Your task to perform on an android device: uninstall "WhatsApp Messenger" Image 0: 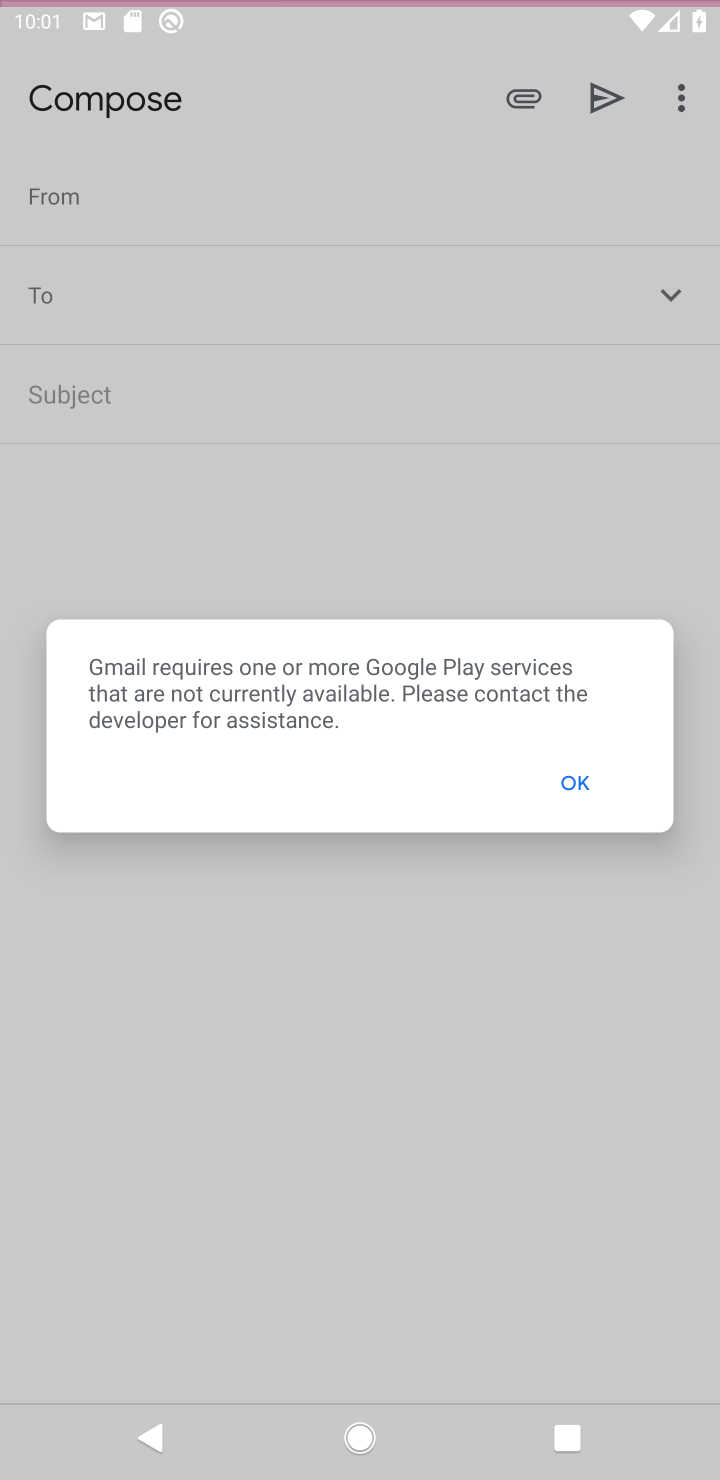
Step 0: press home button
Your task to perform on an android device: uninstall "WhatsApp Messenger" Image 1: 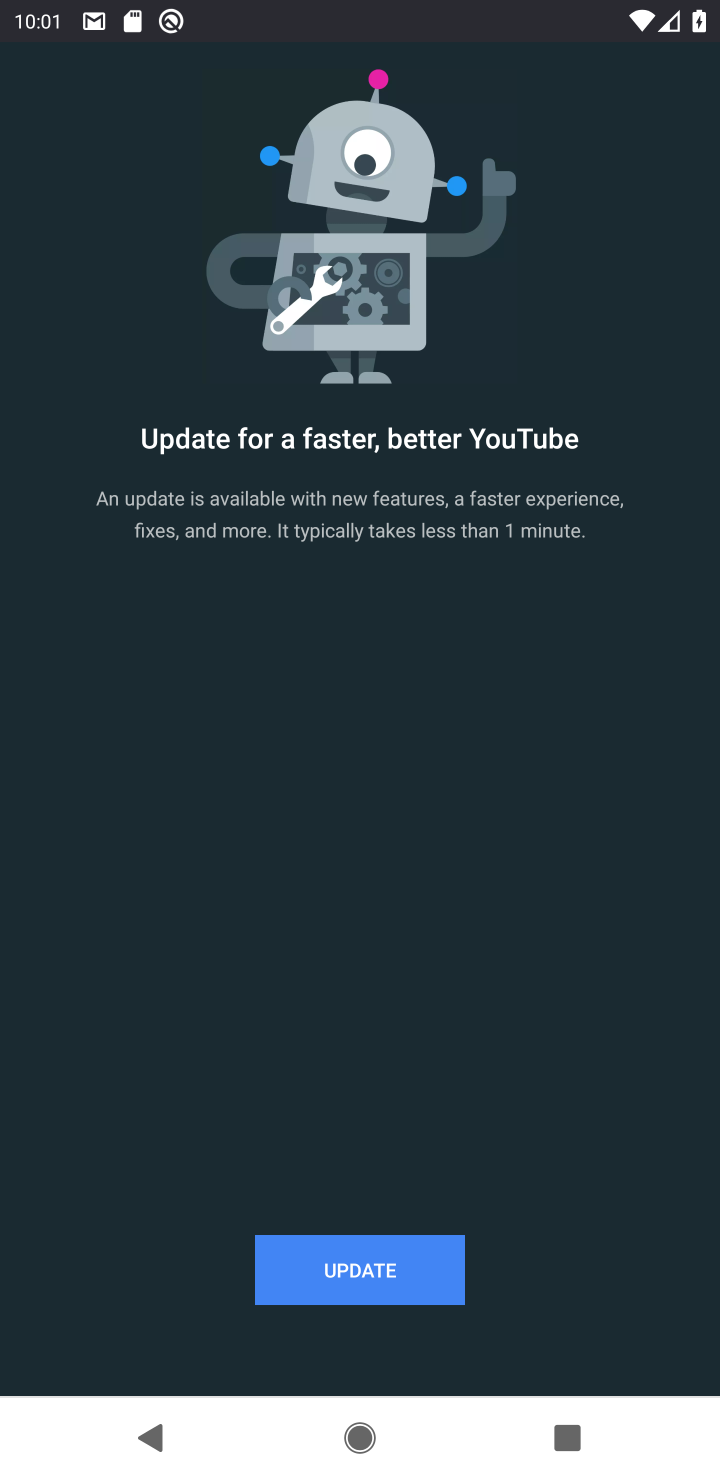
Step 1: press home button
Your task to perform on an android device: uninstall "WhatsApp Messenger" Image 2: 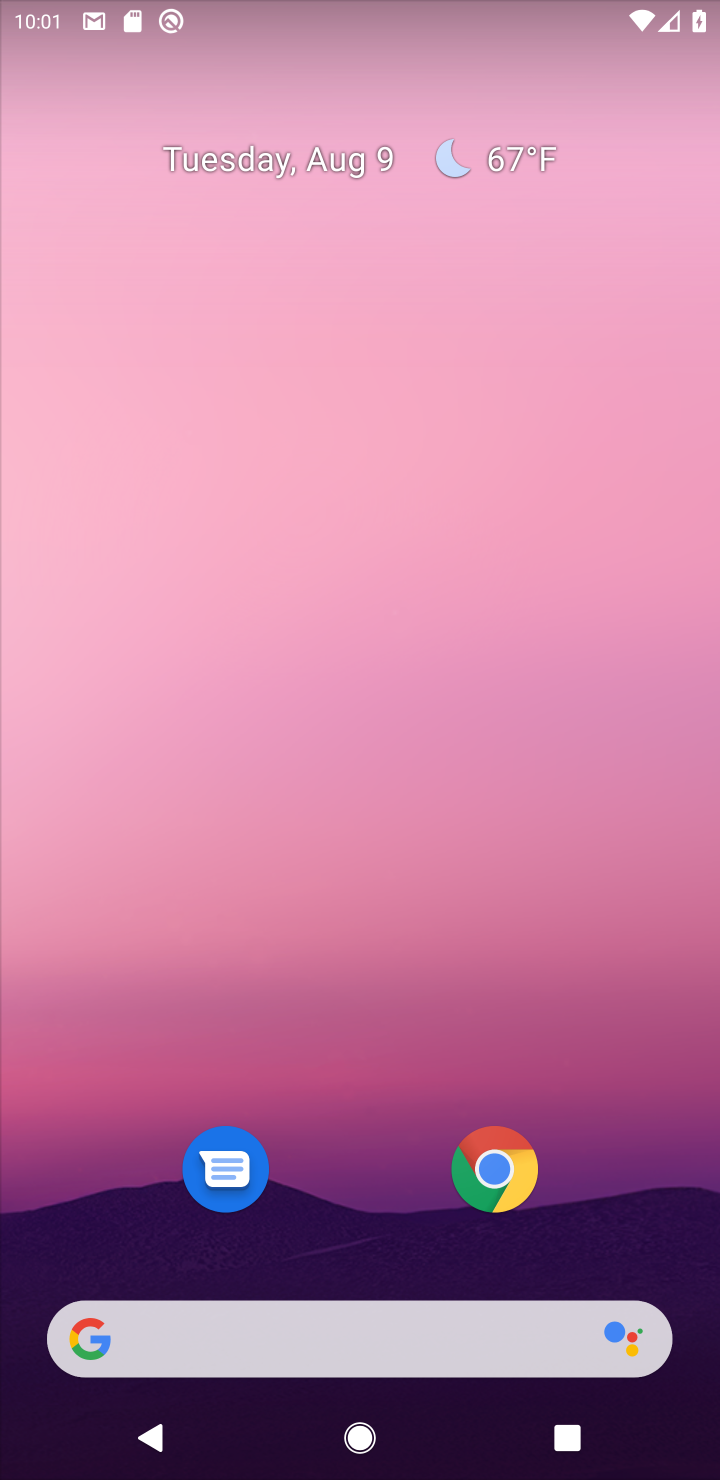
Step 2: drag from (617, 1170) to (664, 98)
Your task to perform on an android device: uninstall "WhatsApp Messenger" Image 3: 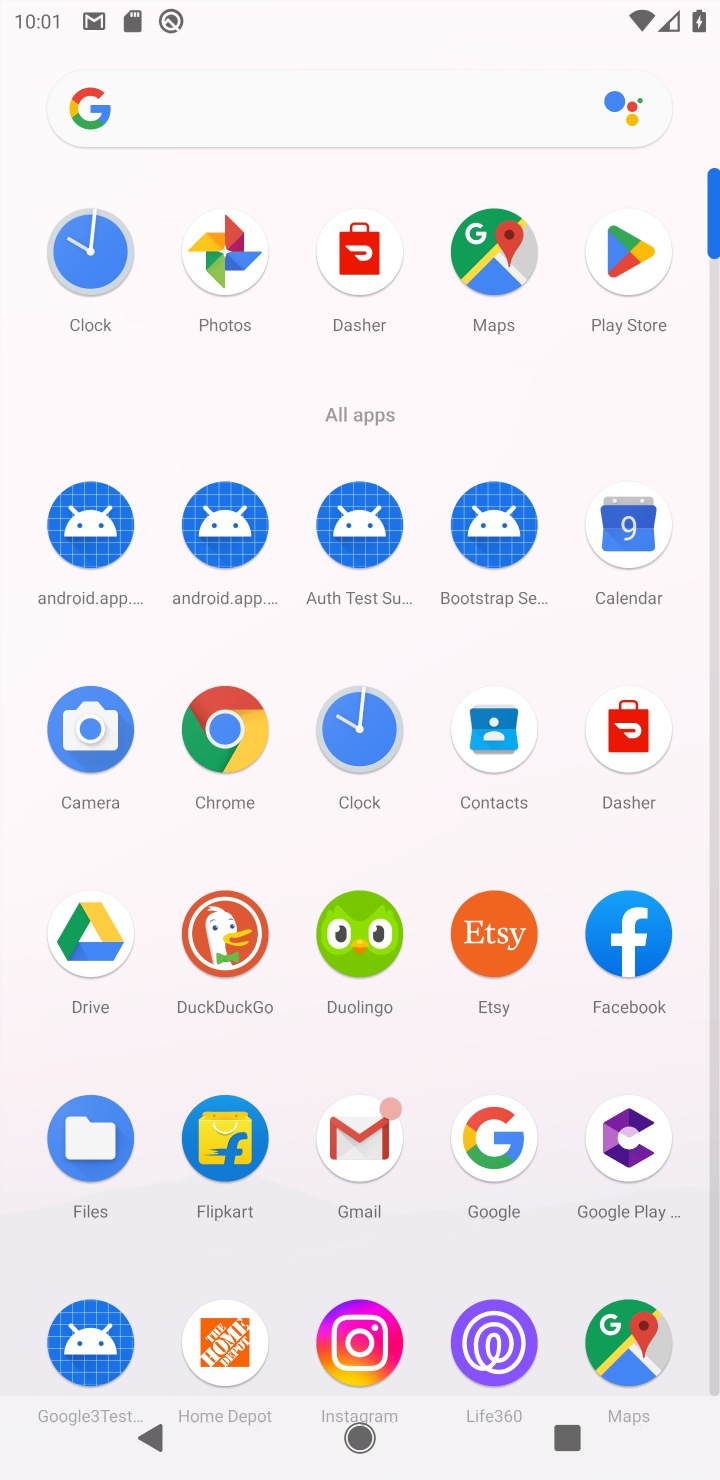
Step 3: click (626, 263)
Your task to perform on an android device: uninstall "WhatsApp Messenger" Image 4: 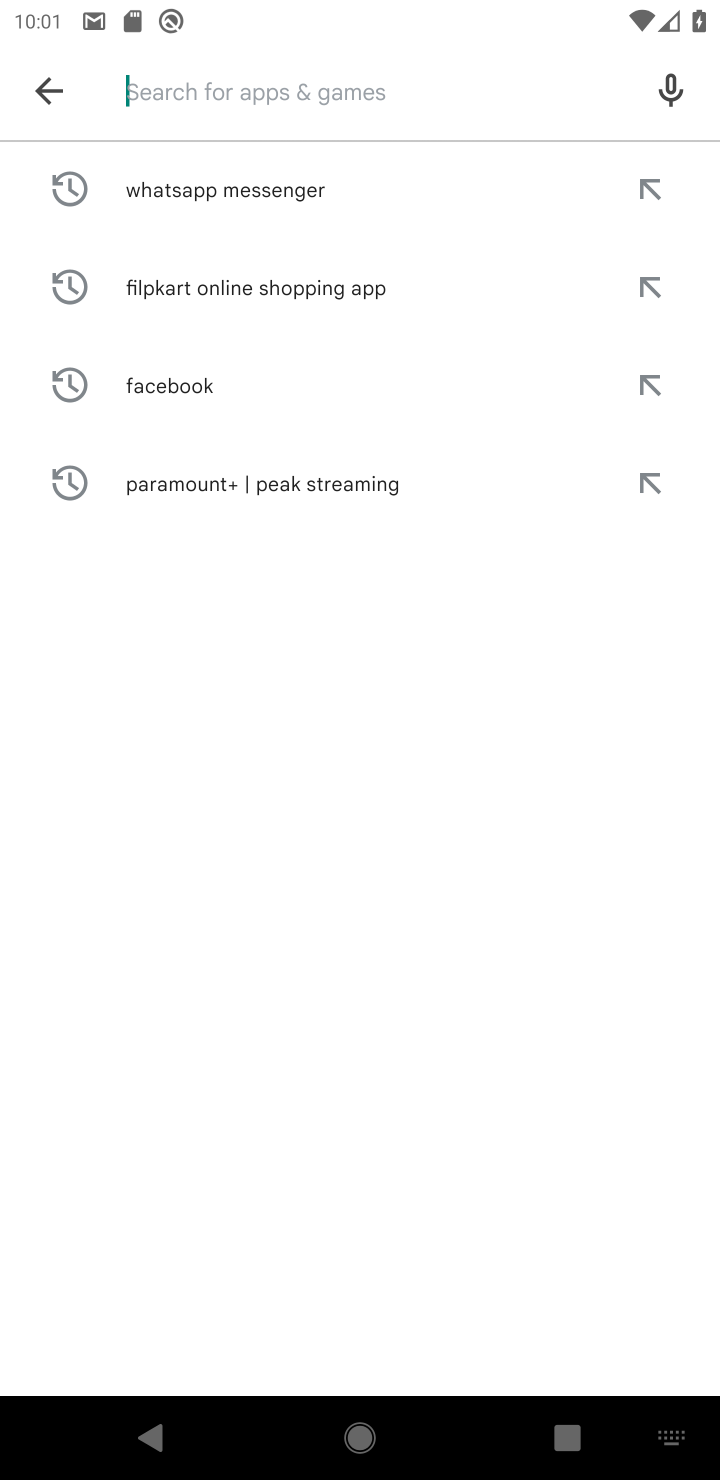
Step 4: click (504, 107)
Your task to perform on an android device: uninstall "WhatsApp Messenger" Image 5: 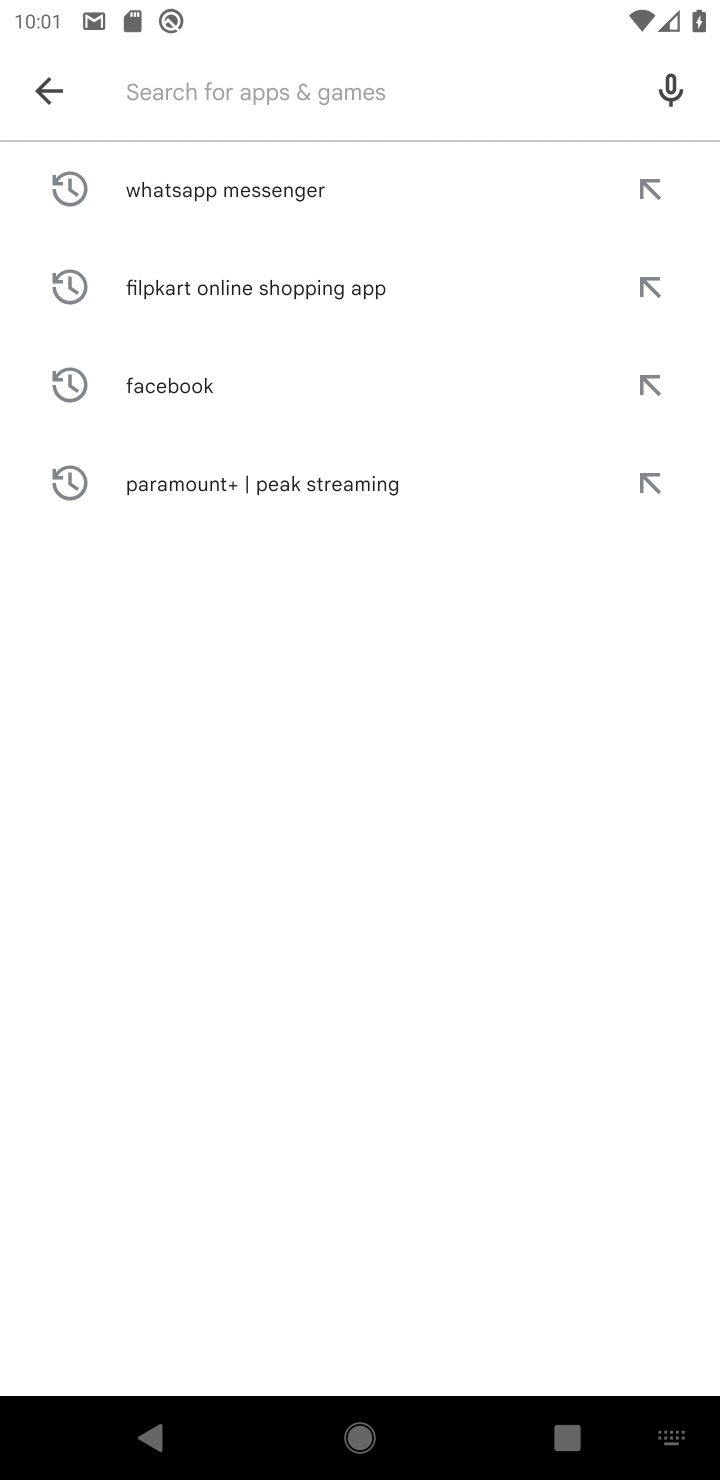
Step 5: type "WhatsApp Messenger"
Your task to perform on an android device: uninstall "WhatsApp Messenger" Image 6: 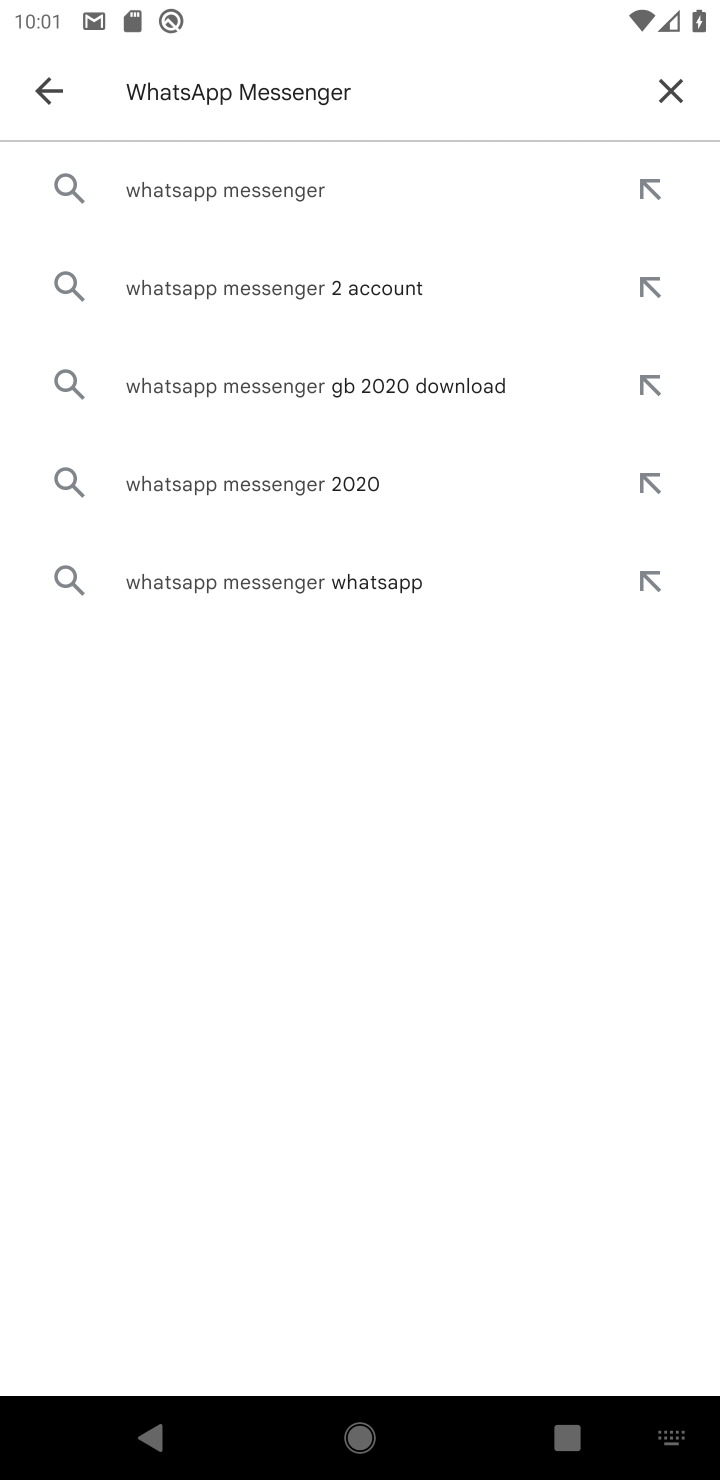
Step 6: click (353, 195)
Your task to perform on an android device: uninstall "WhatsApp Messenger" Image 7: 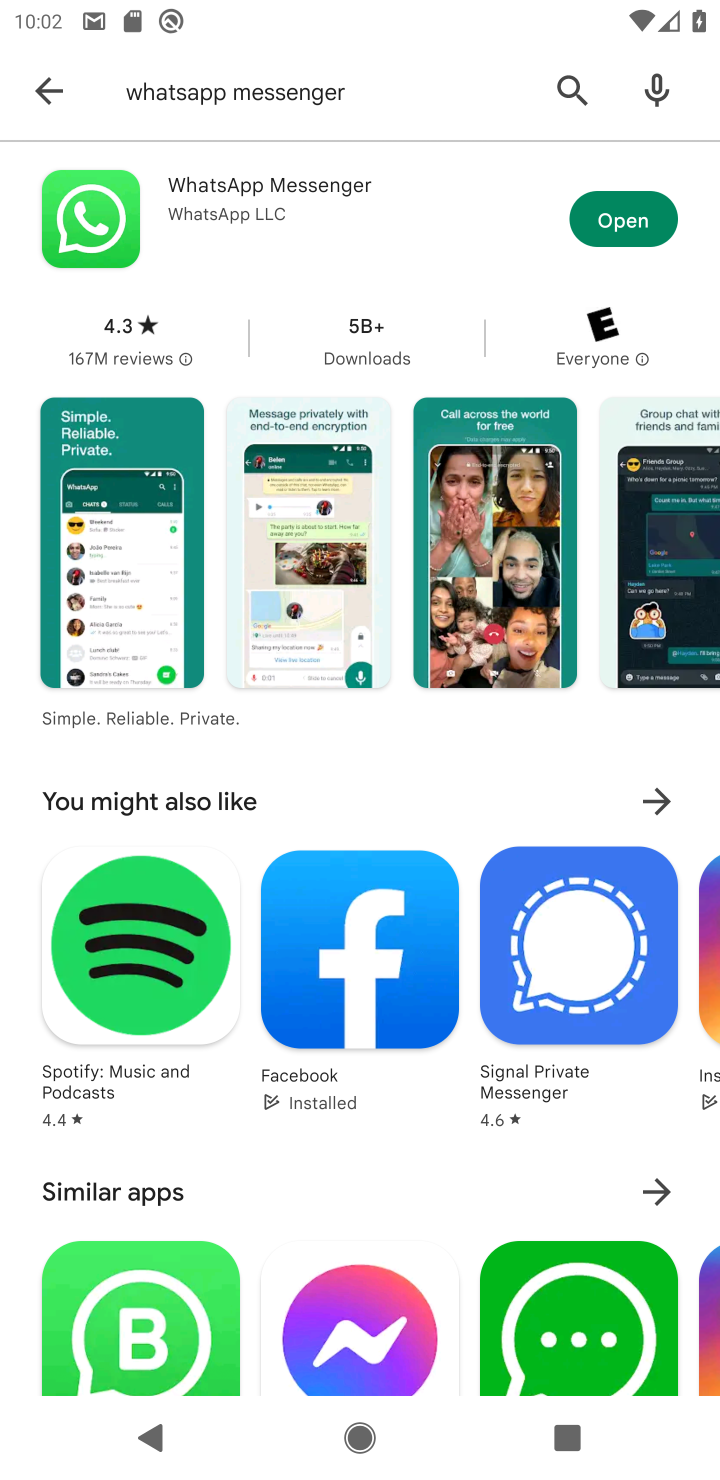
Step 7: task complete